Your task to perform on an android device: empty trash in the gmail app Image 0: 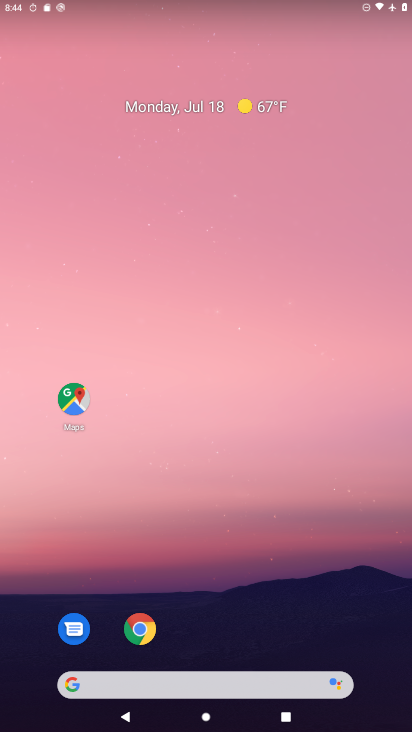
Step 0: press home button
Your task to perform on an android device: empty trash in the gmail app Image 1: 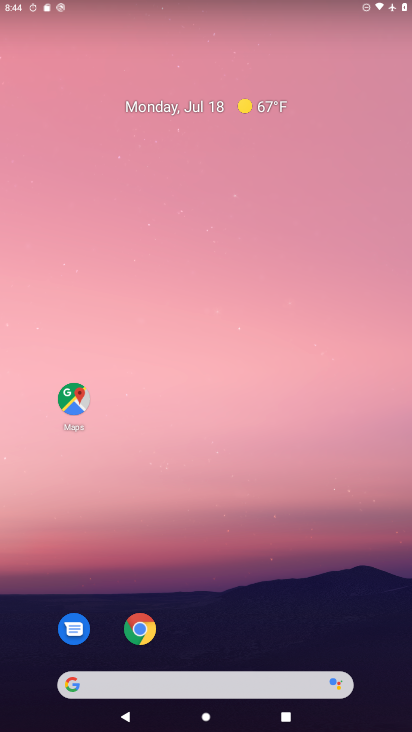
Step 1: drag from (188, 655) to (185, 24)
Your task to perform on an android device: empty trash in the gmail app Image 2: 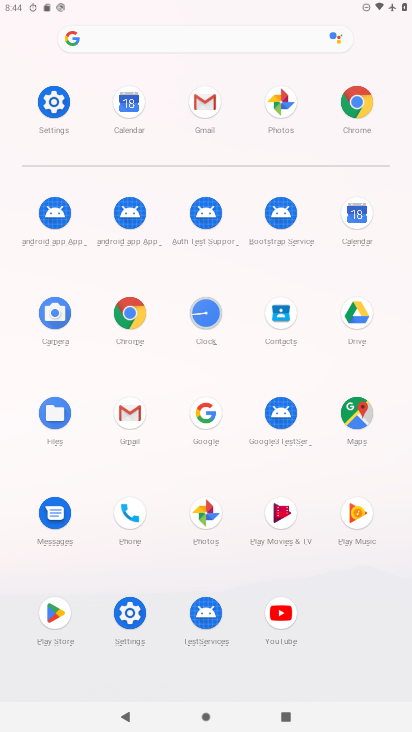
Step 2: click (130, 406)
Your task to perform on an android device: empty trash in the gmail app Image 3: 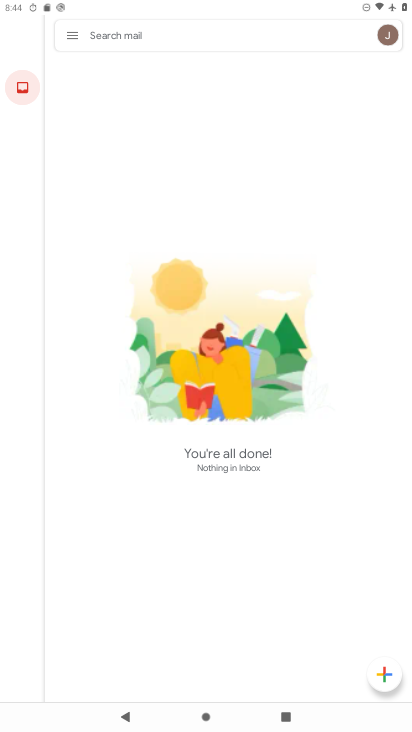
Step 3: click (61, 30)
Your task to perform on an android device: empty trash in the gmail app Image 4: 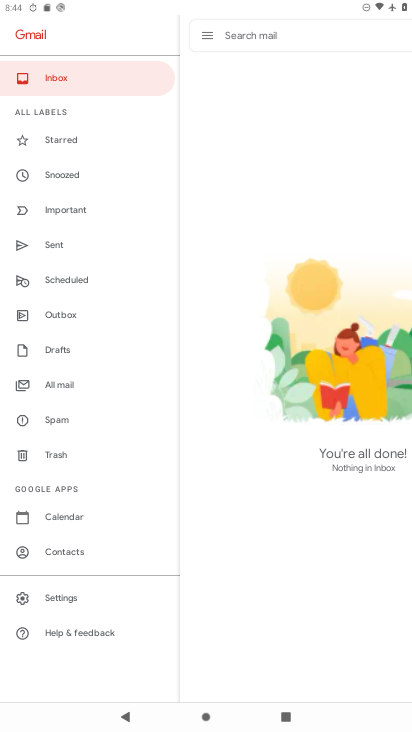
Step 4: click (65, 464)
Your task to perform on an android device: empty trash in the gmail app Image 5: 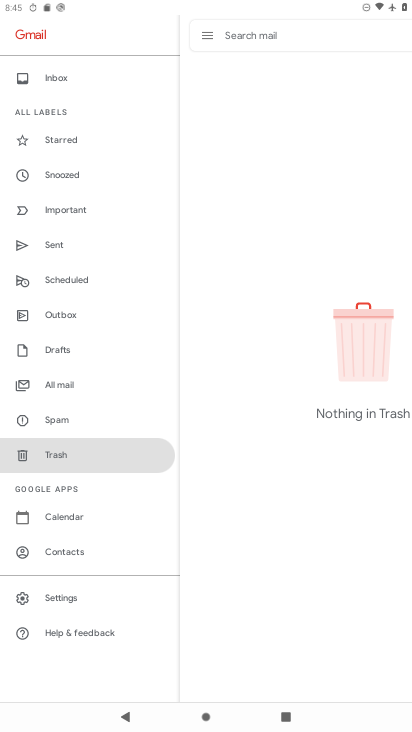
Step 5: task complete